Your task to perform on an android device: Clear all items from cart on target. Search for "macbook pro" on target, select the first entry, add it to the cart, then select checkout. Image 0: 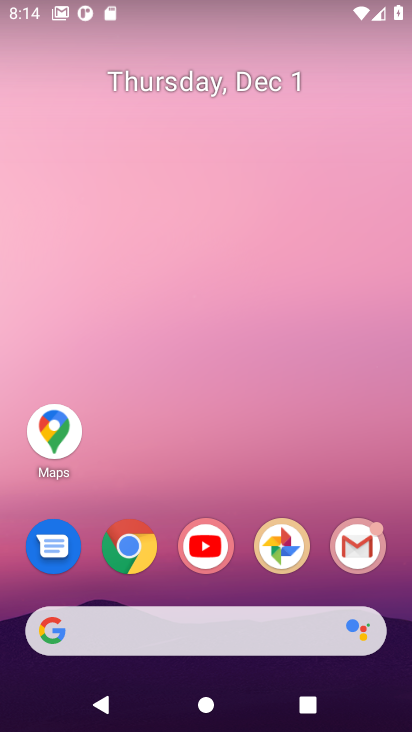
Step 0: click (129, 545)
Your task to perform on an android device: Clear all items from cart on target. Search for "macbook pro" on target, select the first entry, add it to the cart, then select checkout. Image 1: 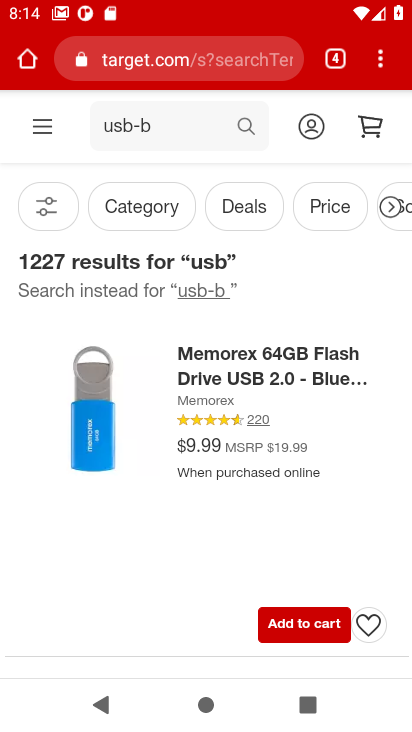
Step 1: click (365, 124)
Your task to perform on an android device: Clear all items from cart on target. Search for "macbook pro" on target, select the first entry, add it to the cart, then select checkout. Image 2: 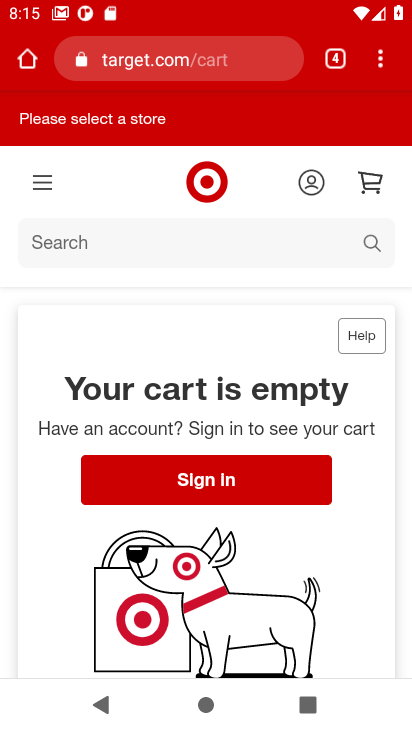
Step 2: drag from (211, 598) to (224, 378)
Your task to perform on an android device: Clear all items from cart on target. Search for "macbook pro" on target, select the first entry, add it to the cart, then select checkout. Image 3: 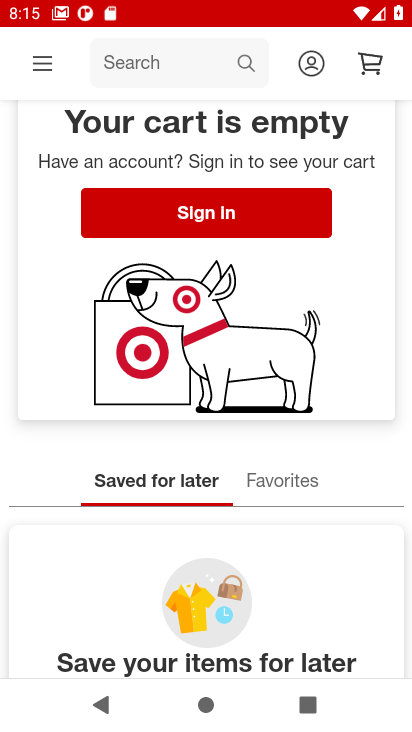
Step 3: click (124, 60)
Your task to perform on an android device: Clear all items from cart on target. Search for "macbook pro" on target, select the first entry, add it to the cart, then select checkout. Image 4: 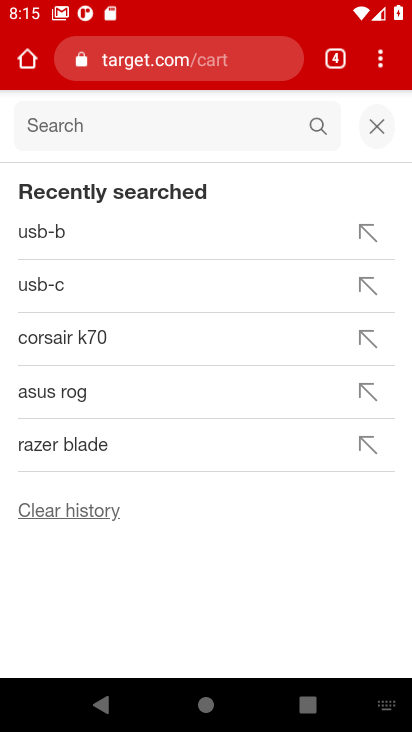
Step 4: type "macbook pro"
Your task to perform on an android device: Clear all items from cart on target. Search for "macbook pro" on target, select the first entry, add it to the cart, then select checkout. Image 5: 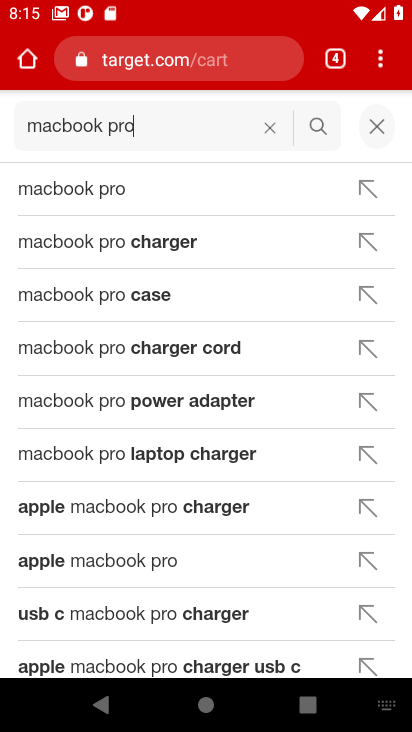
Step 5: click (61, 195)
Your task to perform on an android device: Clear all items from cart on target. Search for "macbook pro" on target, select the first entry, add it to the cart, then select checkout. Image 6: 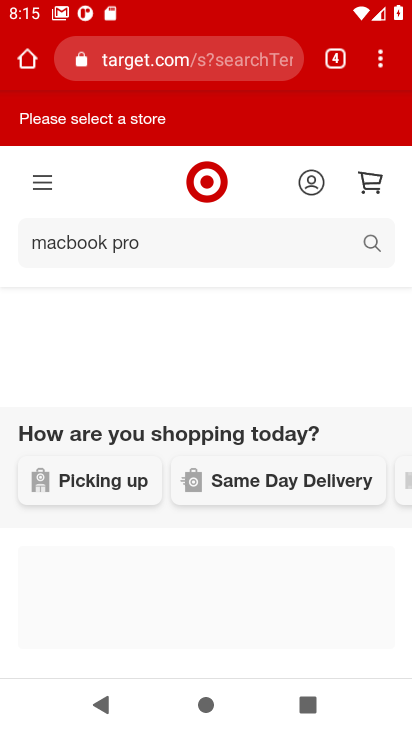
Step 6: task complete